Your task to perform on an android device: Go to eBay Image 0: 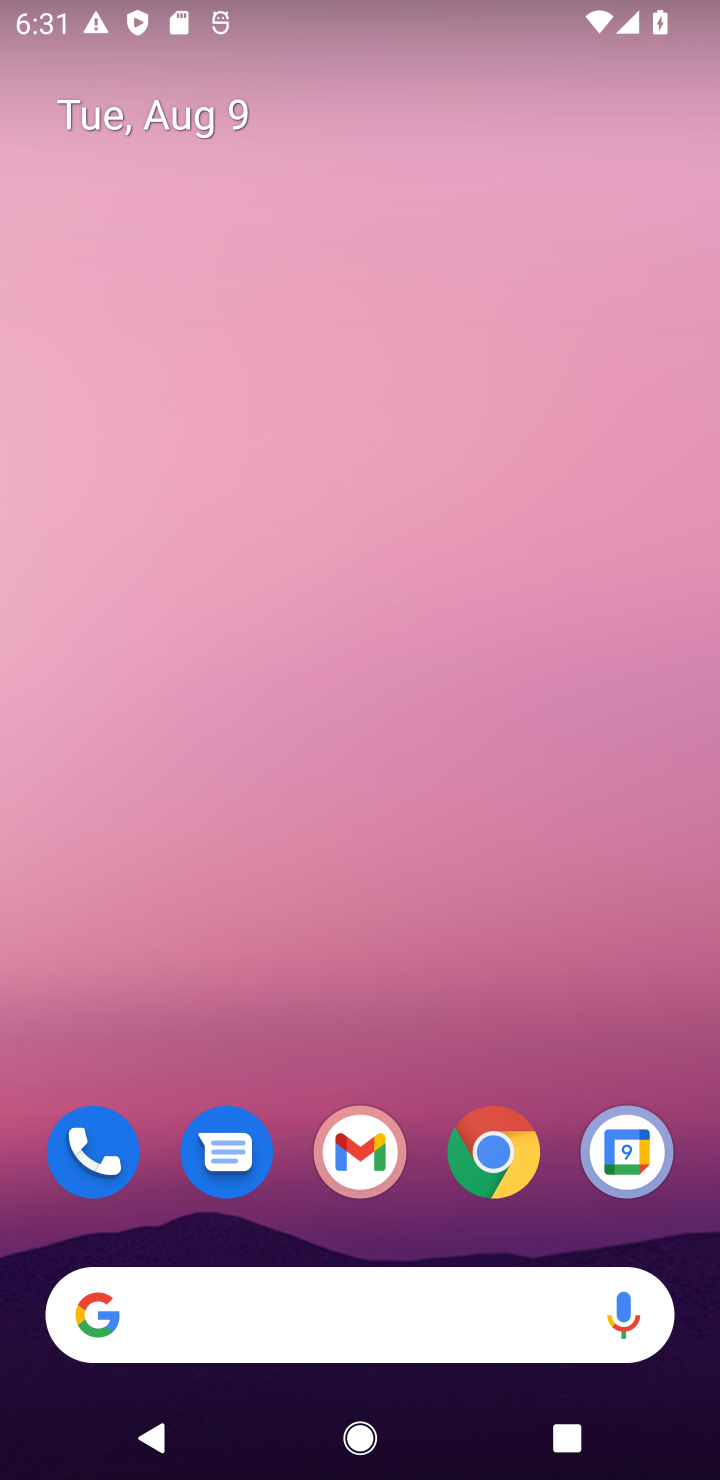
Step 0: click (518, 1153)
Your task to perform on an android device: Go to eBay Image 1: 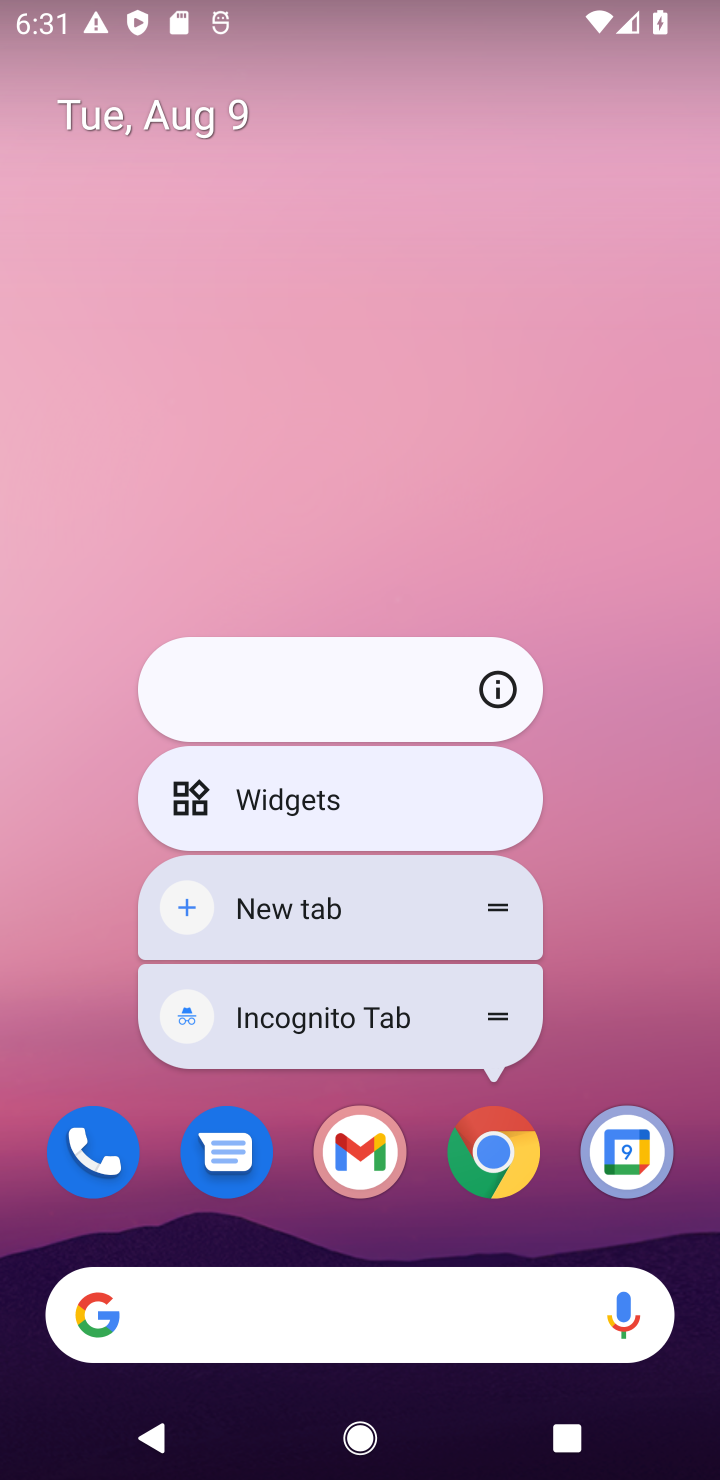
Step 1: click (493, 1157)
Your task to perform on an android device: Go to eBay Image 2: 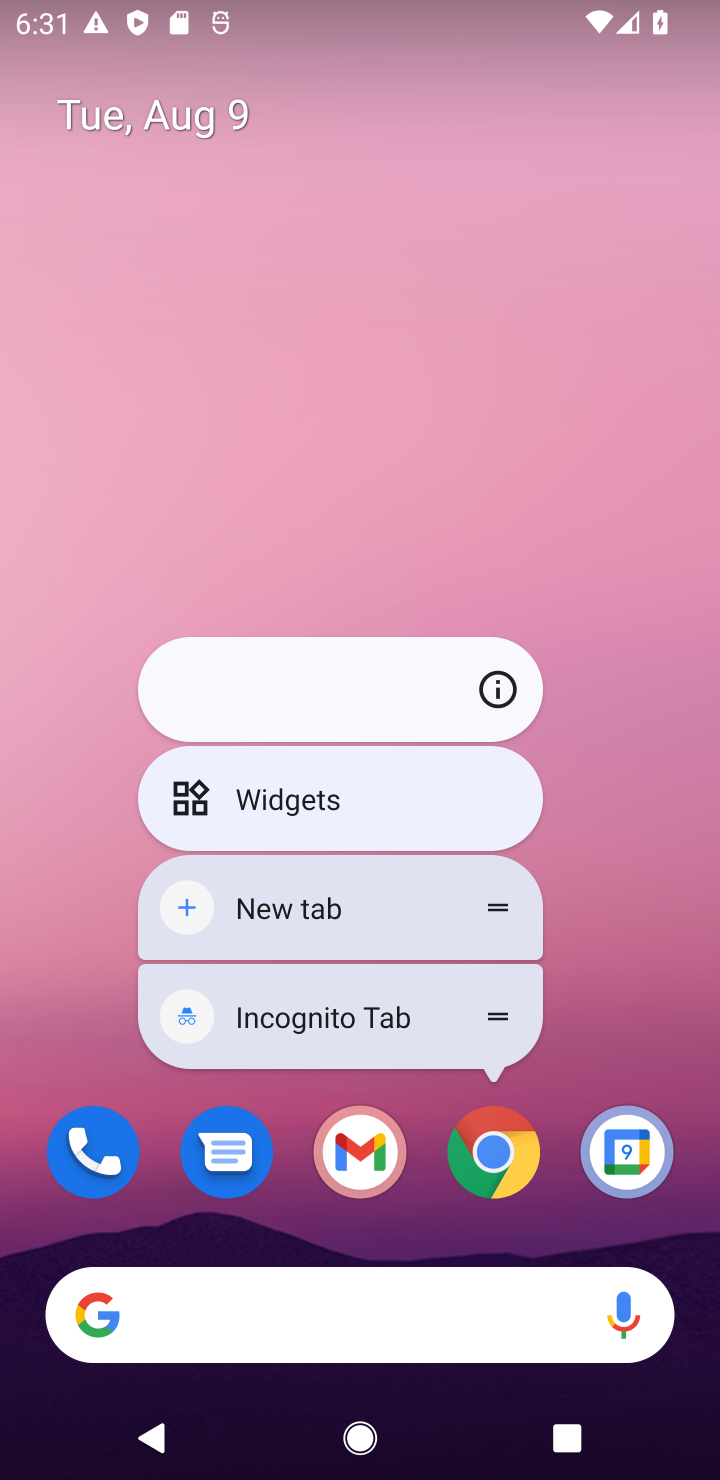
Step 2: click (493, 1157)
Your task to perform on an android device: Go to eBay Image 3: 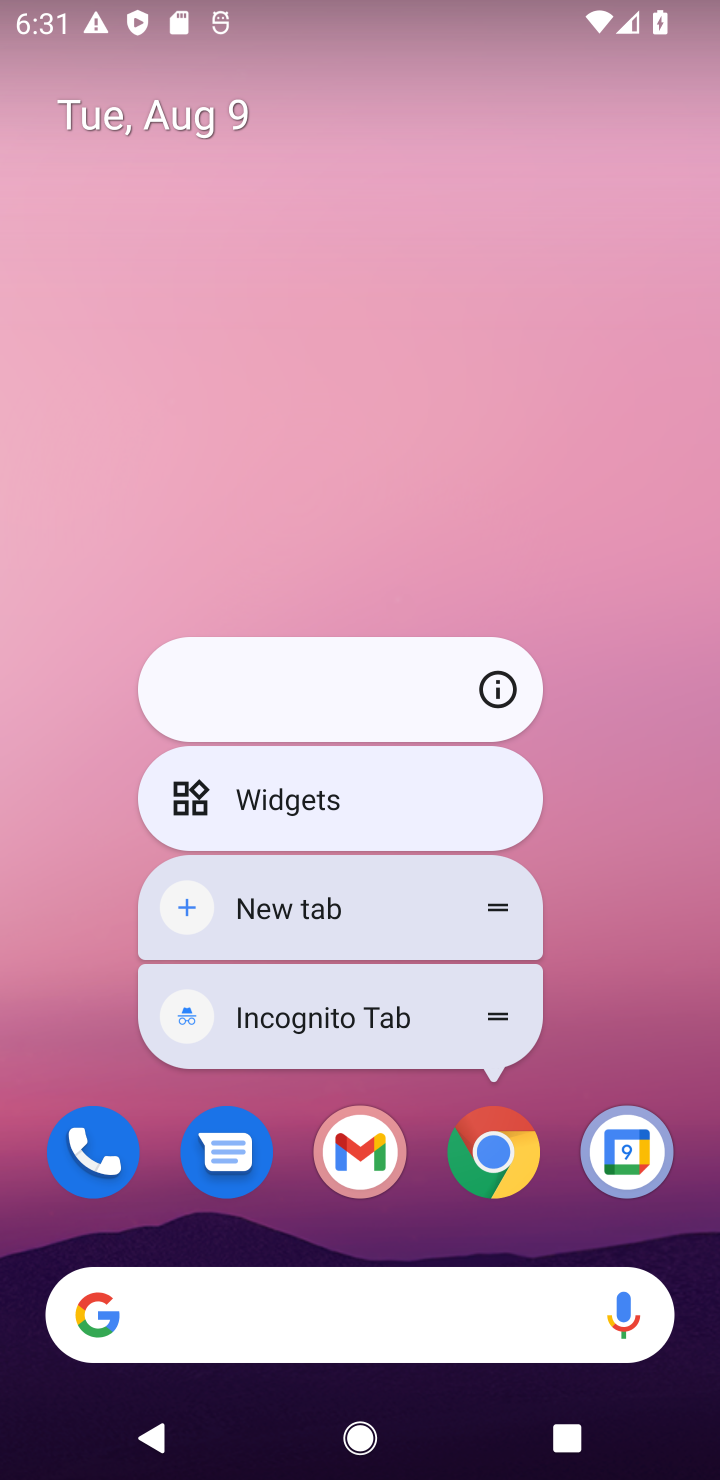
Step 3: click (493, 1157)
Your task to perform on an android device: Go to eBay Image 4: 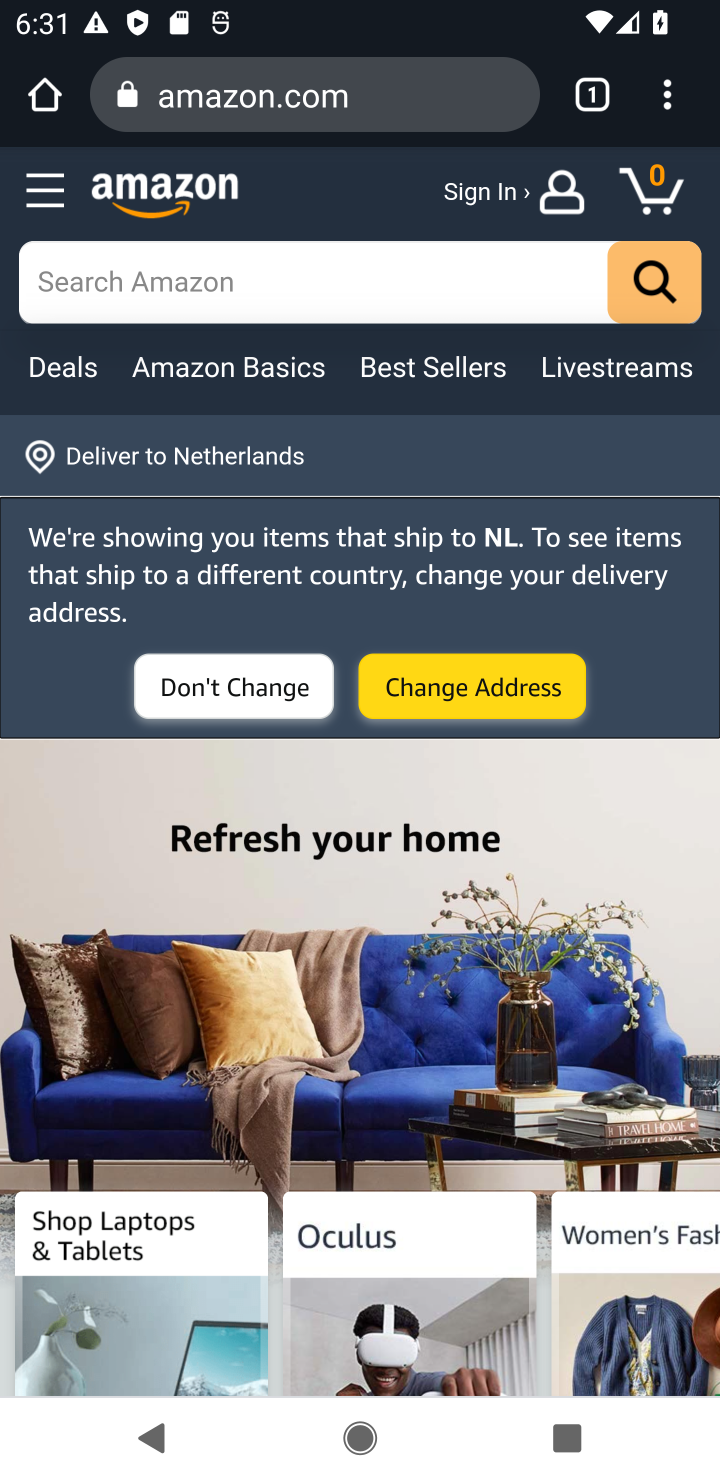
Step 4: click (592, 82)
Your task to perform on an android device: Go to eBay Image 5: 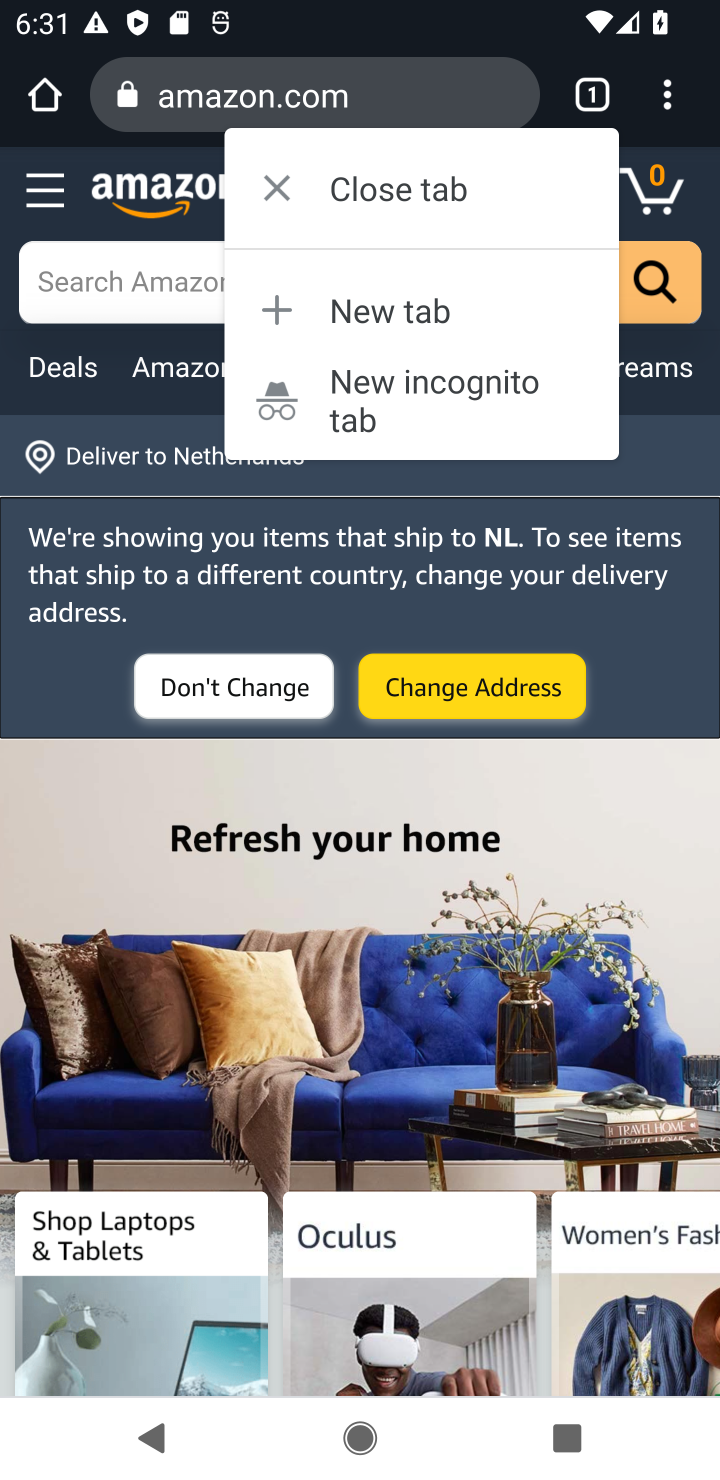
Step 5: click (592, 86)
Your task to perform on an android device: Go to eBay Image 6: 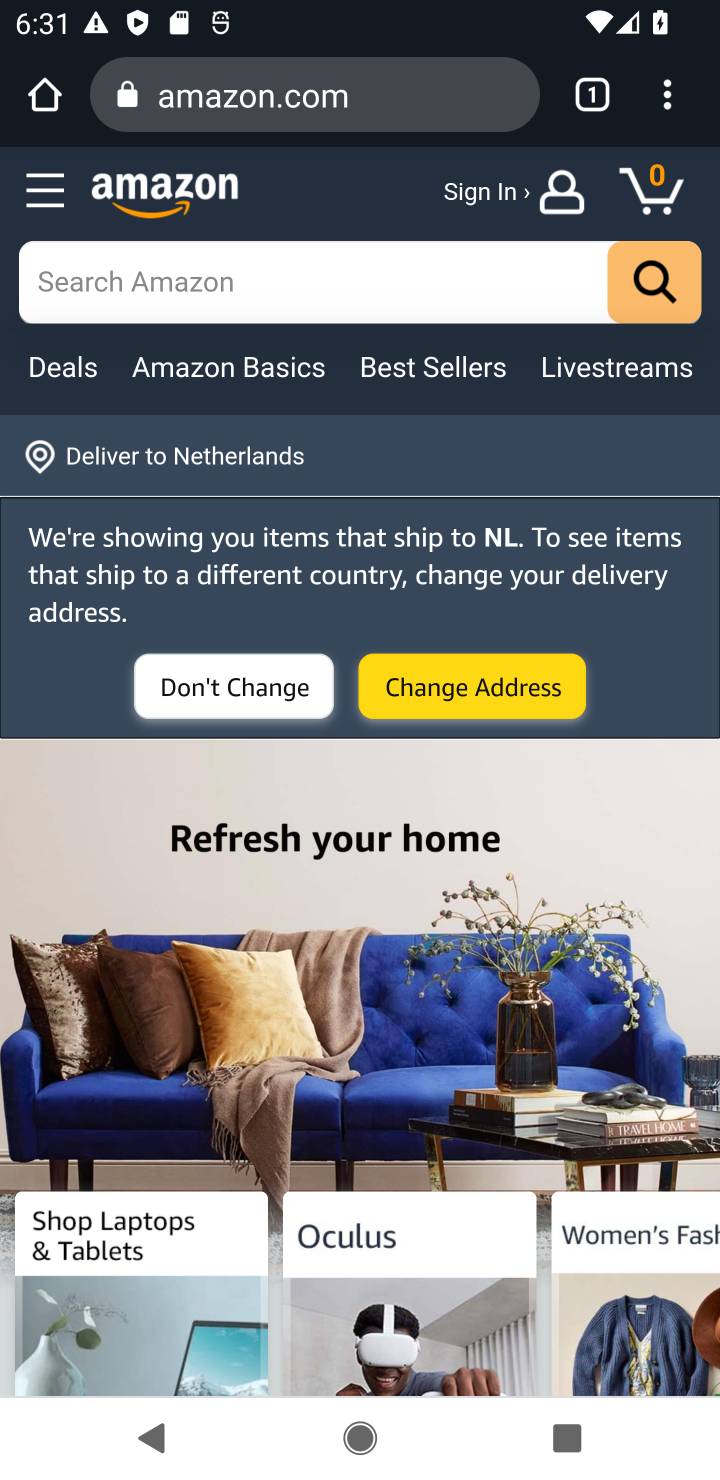
Step 6: click (594, 93)
Your task to perform on an android device: Go to eBay Image 7: 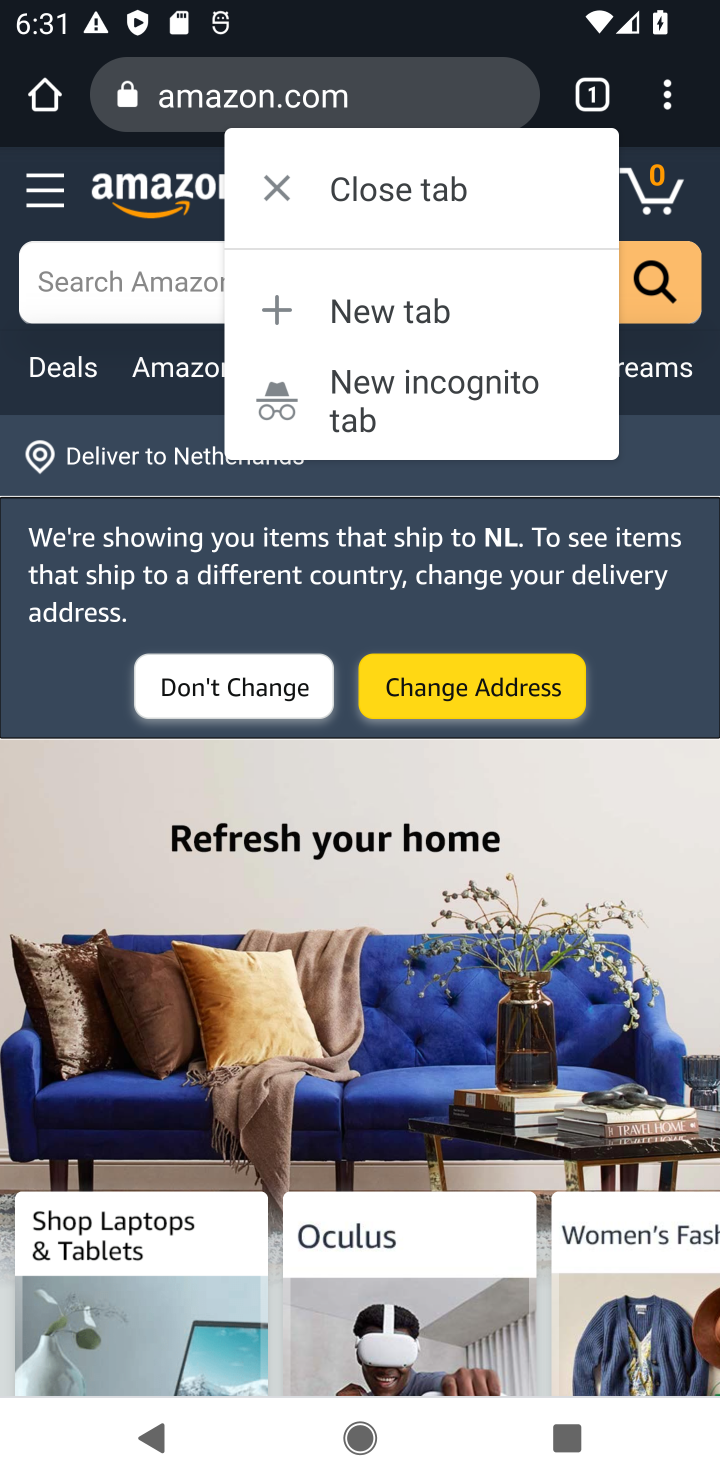
Step 7: click (603, 102)
Your task to perform on an android device: Go to eBay Image 8: 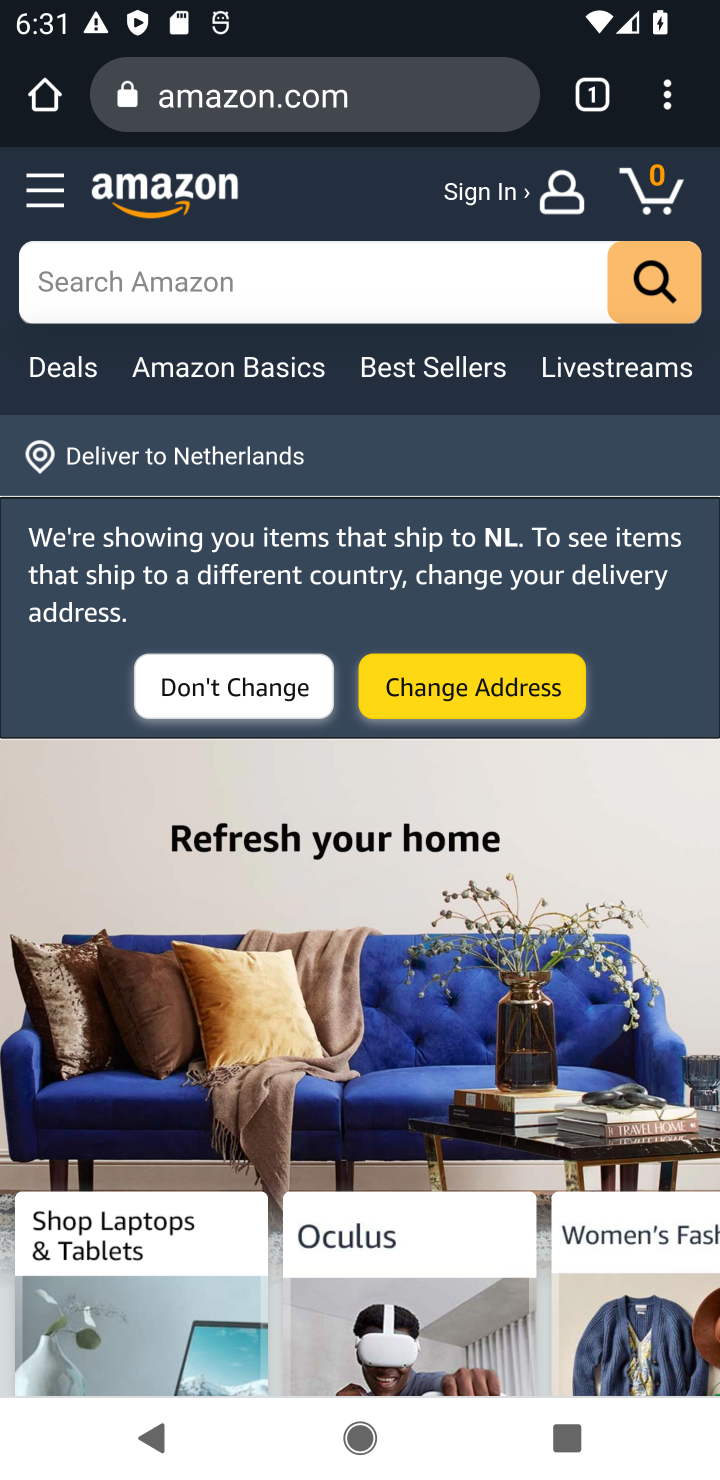
Step 8: click (596, 98)
Your task to perform on an android device: Go to eBay Image 9: 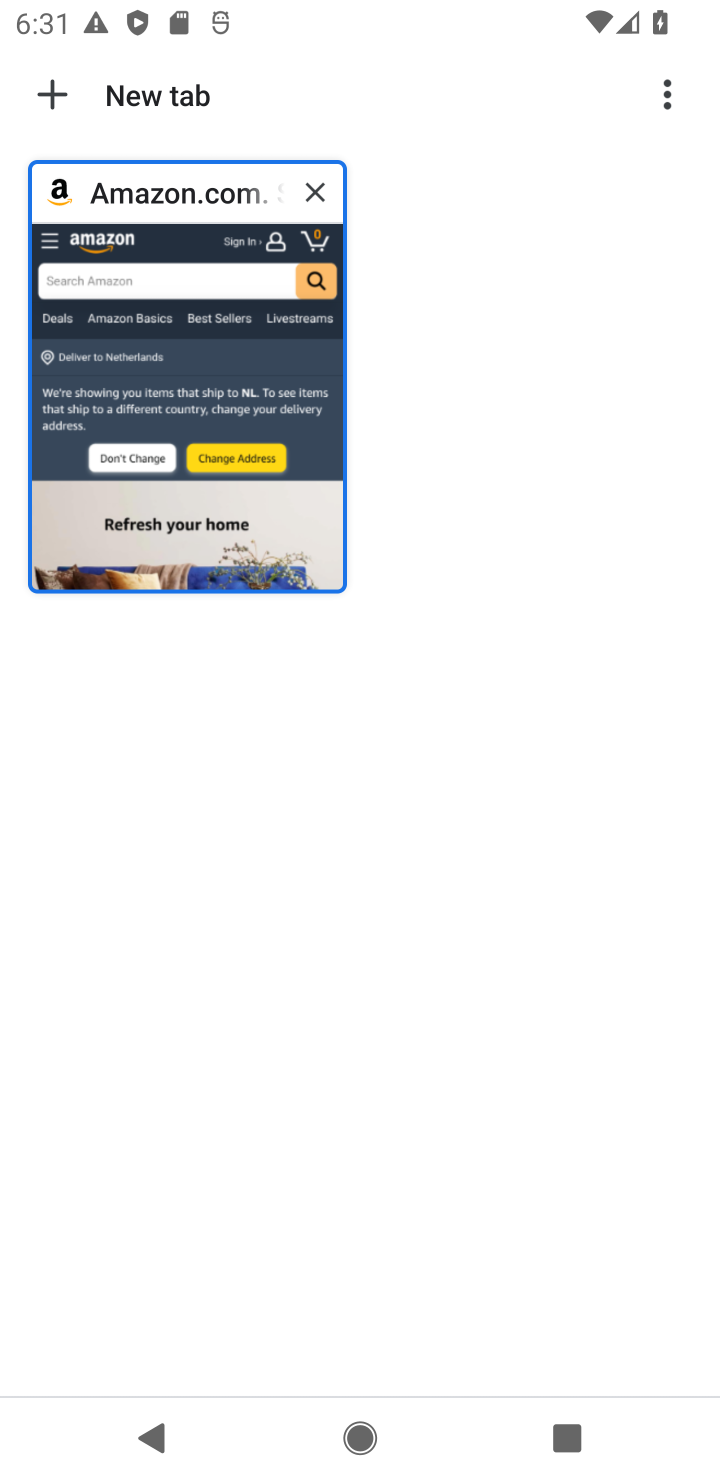
Step 9: click (67, 82)
Your task to perform on an android device: Go to eBay Image 10: 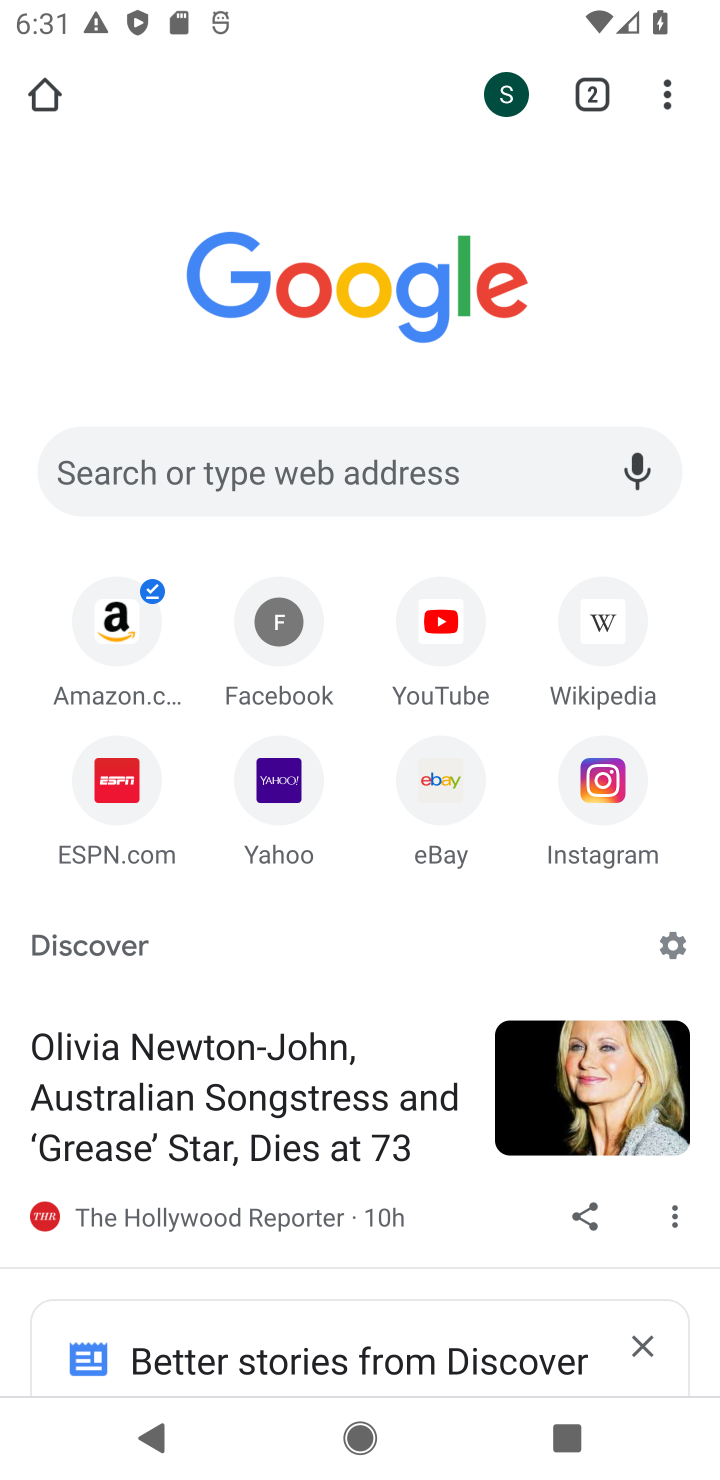
Step 10: click (431, 793)
Your task to perform on an android device: Go to eBay Image 11: 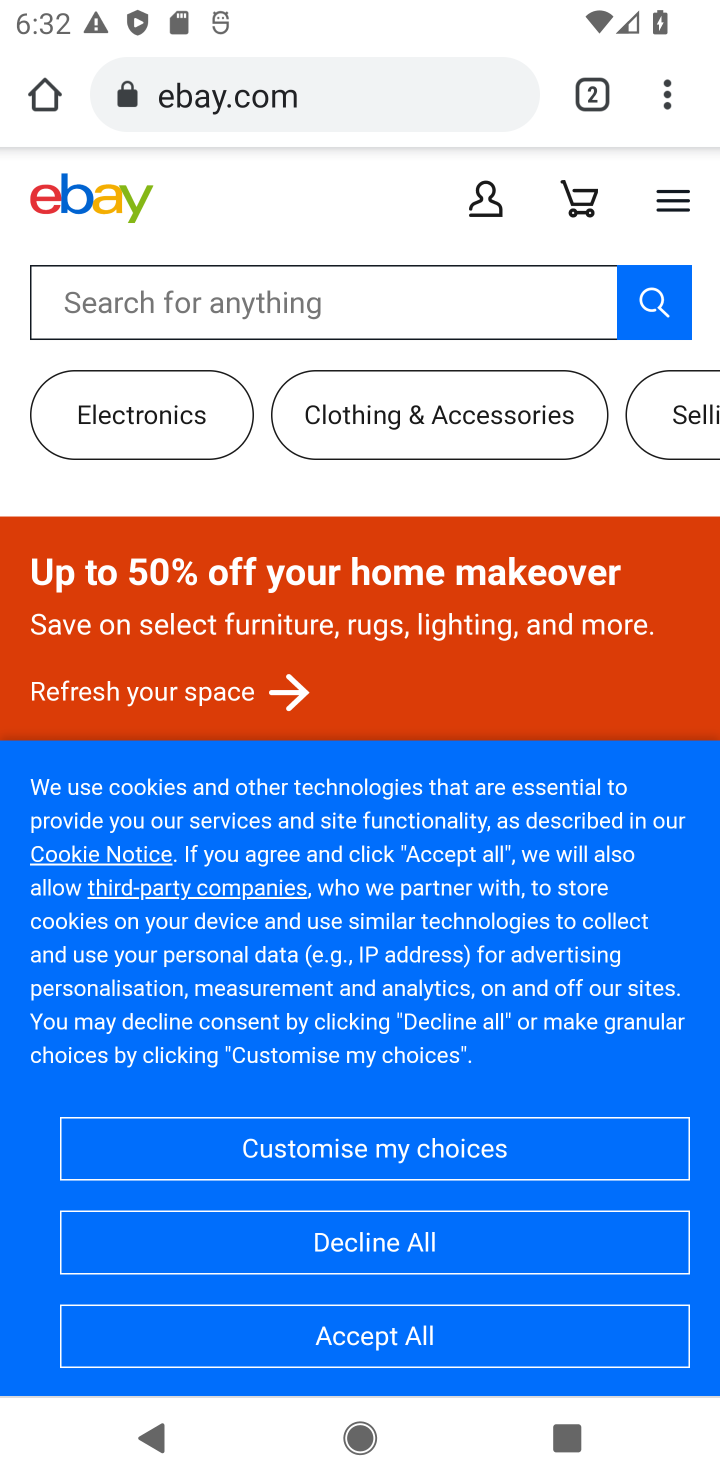
Step 11: task complete